Your task to perform on an android device: turn on wifi Image 0: 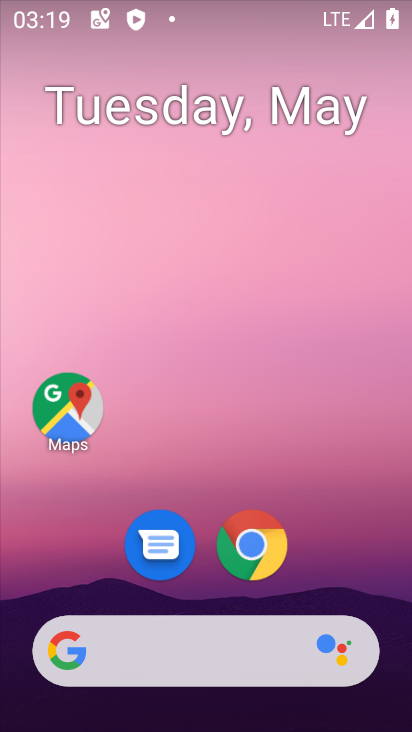
Step 0: drag from (396, 610) to (304, 12)
Your task to perform on an android device: turn on wifi Image 1: 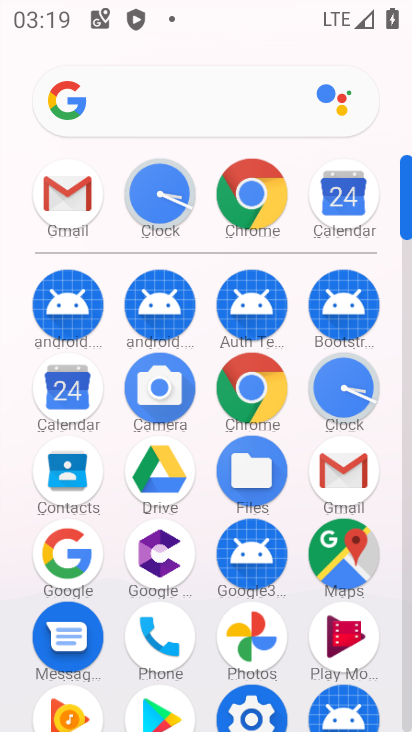
Step 1: click (408, 711)
Your task to perform on an android device: turn on wifi Image 2: 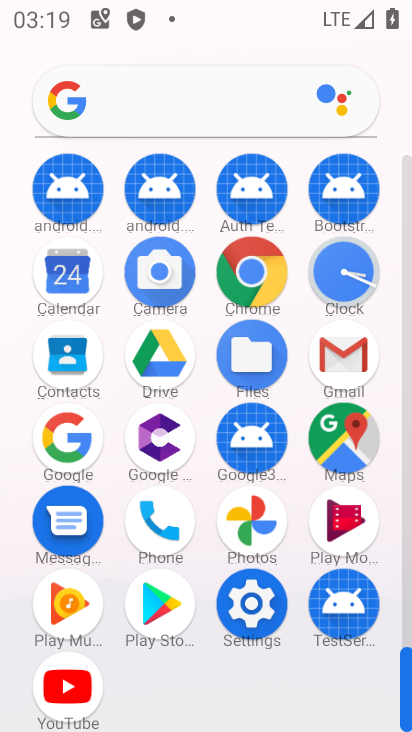
Step 2: click (254, 605)
Your task to perform on an android device: turn on wifi Image 3: 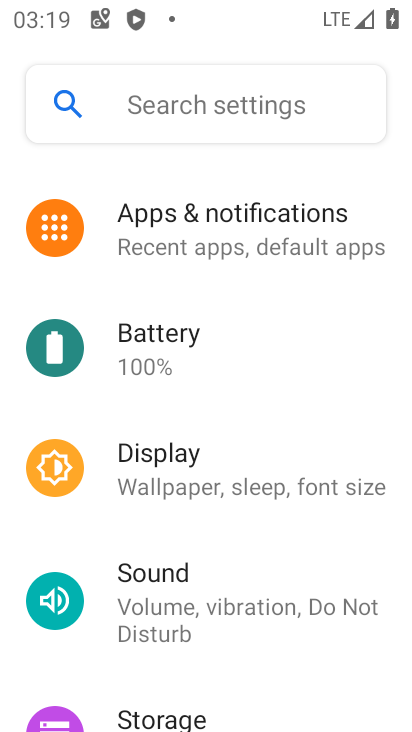
Step 3: drag from (317, 314) to (330, 615)
Your task to perform on an android device: turn on wifi Image 4: 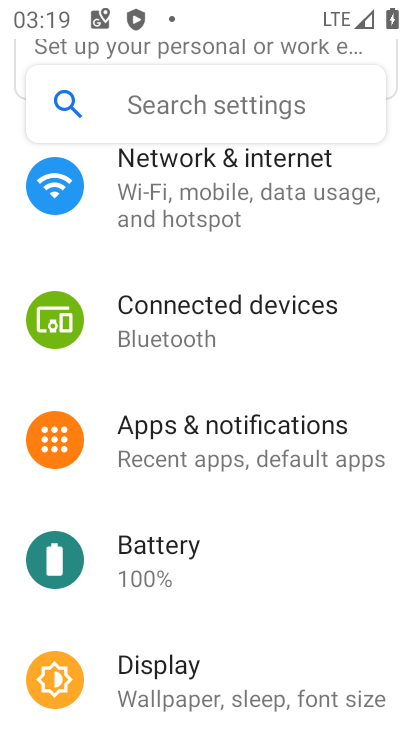
Step 4: click (182, 195)
Your task to perform on an android device: turn on wifi Image 5: 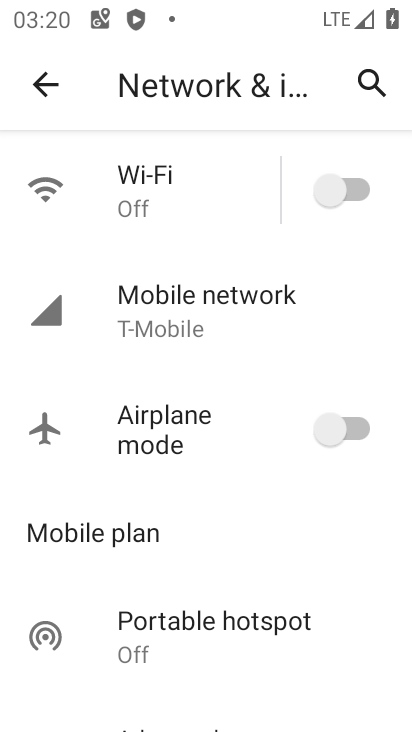
Step 5: click (357, 192)
Your task to perform on an android device: turn on wifi Image 6: 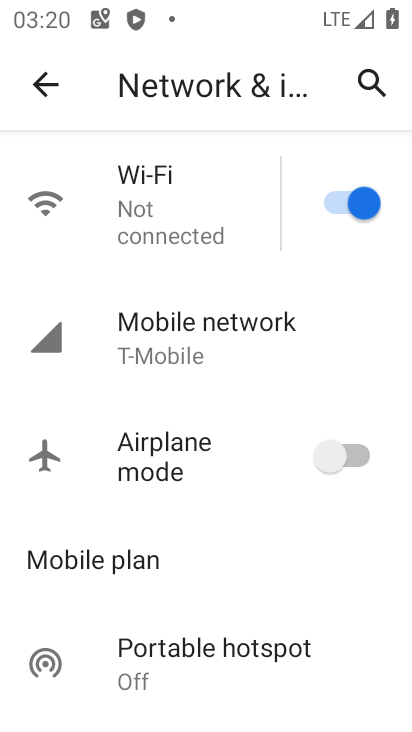
Step 6: task complete